Your task to perform on an android device: empty trash in the gmail app Image 0: 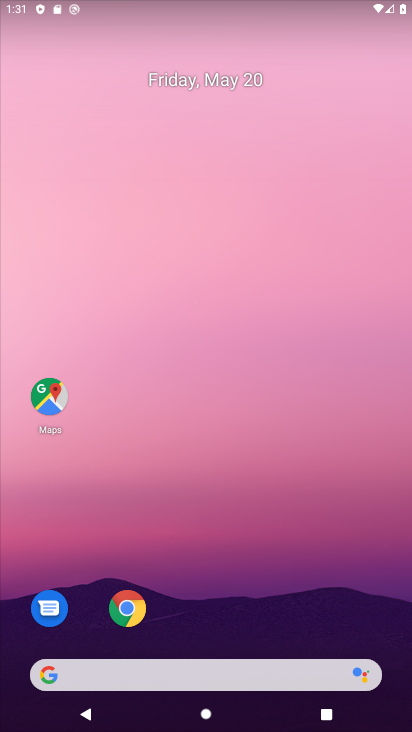
Step 0: drag from (215, 574) to (222, 274)
Your task to perform on an android device: empty trash in the gmail app Image 1: 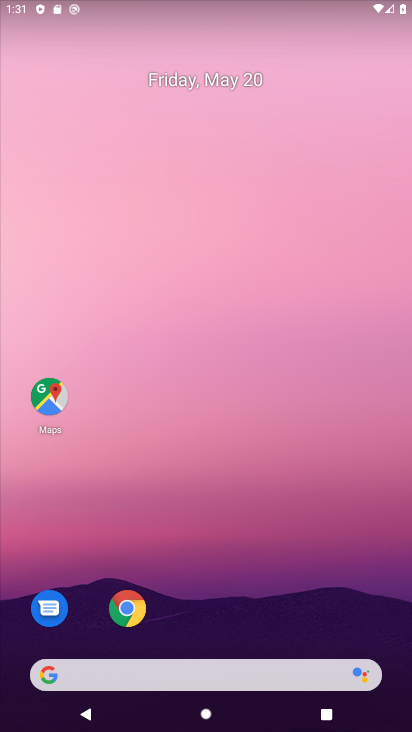
Step 1: drag from (283, 601) to (319, 125)
Your task to perform on an android device: empty trash in the gmail app Image 2: 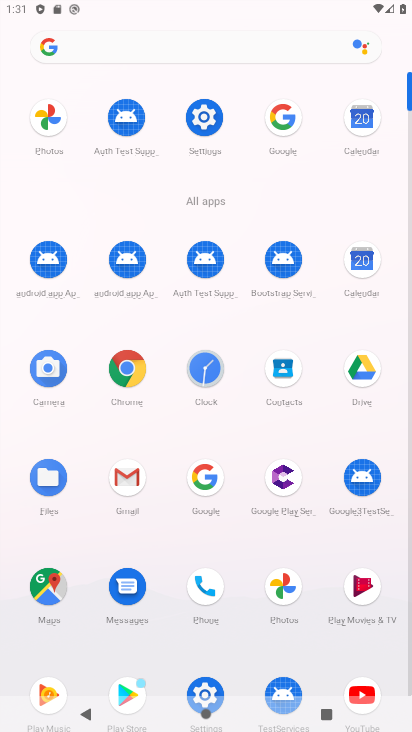
Step 2: click (117, 480)
Your task to perform on an android device: empty trash in the gmail app Image 3: 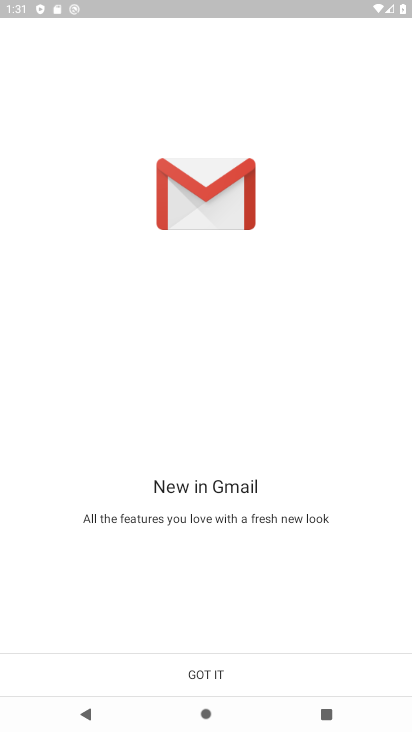
Step 3: click (222, 669)
Your task to perform on an android device: empty trash in the gmail app Image 4: 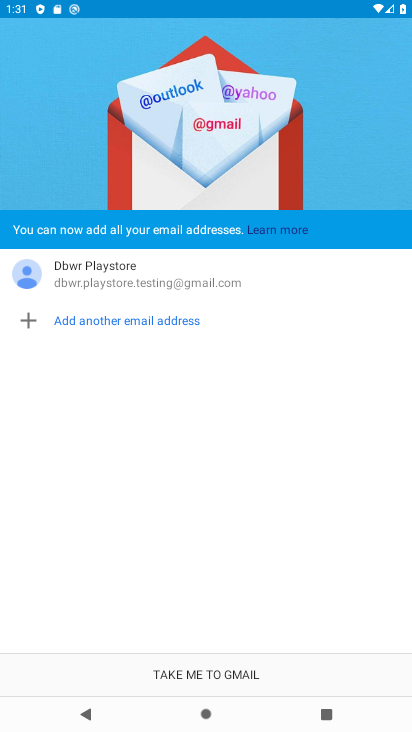
Step 4: click (205, 673)
Your task to perform on an android device: empty trash in the gmail app Image 5: 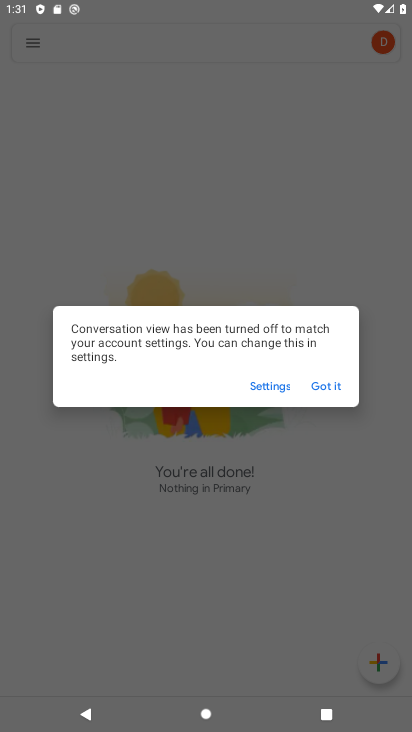
Step 5: click (328, 381)
Your task to perform on an android device: empty trash in the gmail app Image 6: 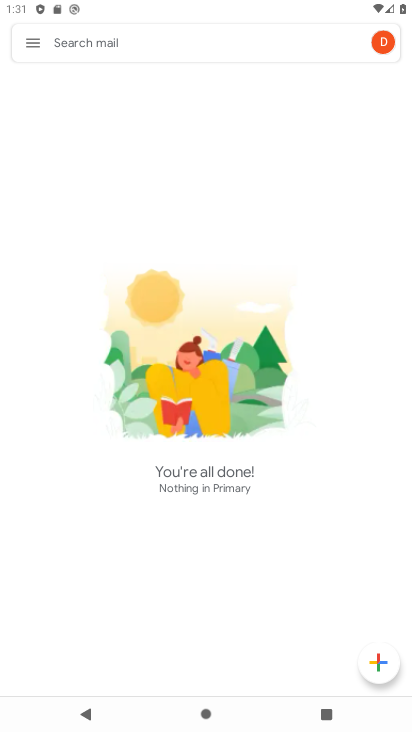
Step 6: click (37, 43)
Your task to perform on an android device: empty trash in the gmail app Image 7: 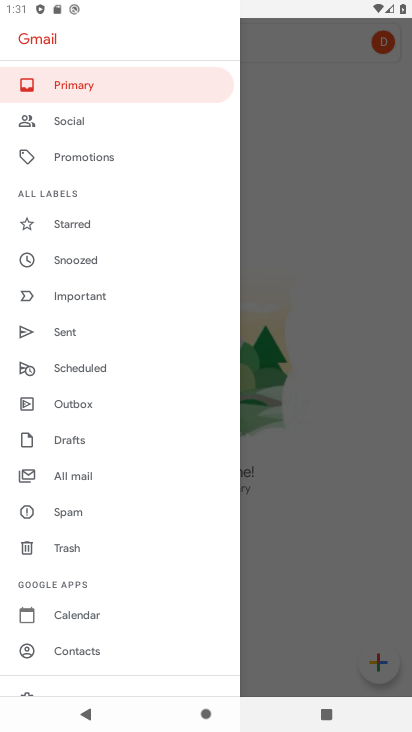
Step 7: click (80, 550)
Your task to perform on an android device: empty trash in the gmail app Image 8: 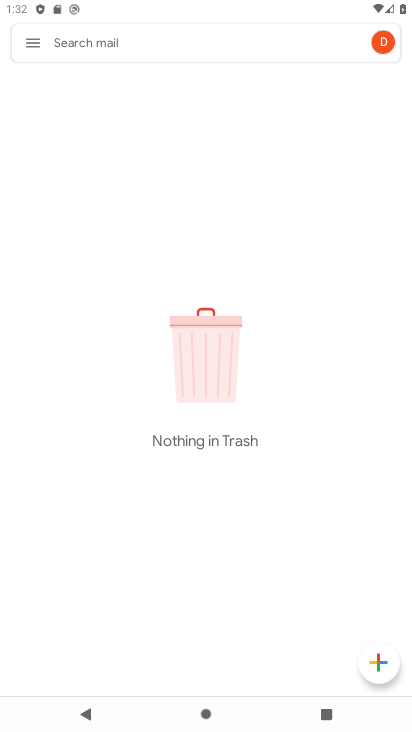
Step 8: task complete